Your task to perform on an android device: Go to wifi settings Image 0: 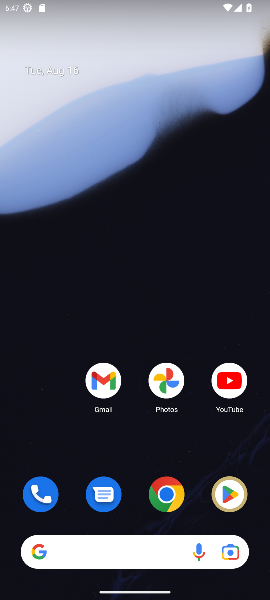
Step 0: drag from (48, 409) to (94, 183)
Your task to perform on an android device: Go to wifi settings Image 1: 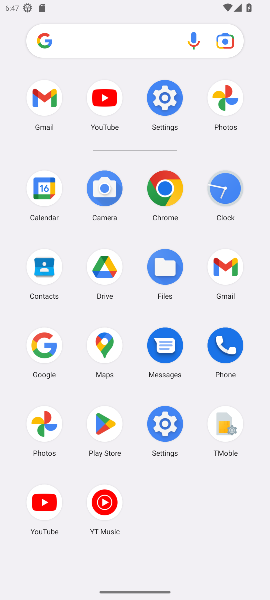
Step 1: click (173, 434)
Your task to perform on an android device: Go to wifi settings Image 2: 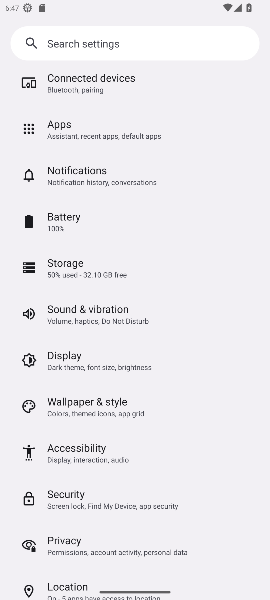
Step 2: drag from (129, 202) to (153, 446)
Your task to perform on an android device: Go to wifi settings Image 3: 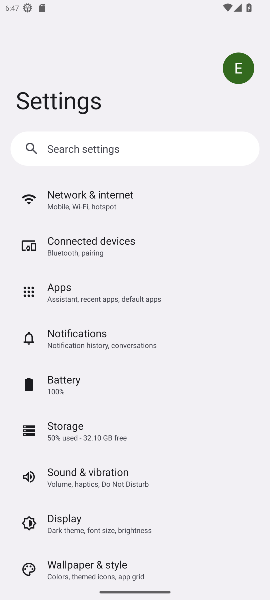
Step 3: click (123, 193)
Your task to perform on an android device: Go to wifi settings Image 4: 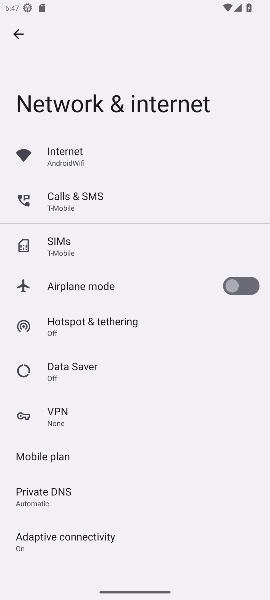
Step 4: task complete